Your task to perform on an android device: Open my contact list Image 0: 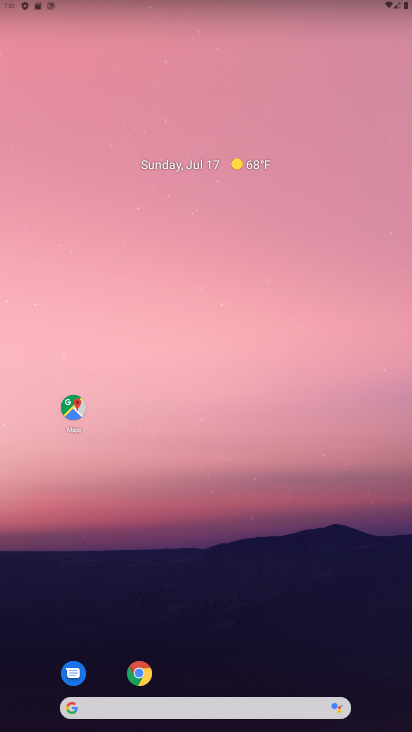
Step 0: drag from (245, 563) to (1, 252)
Your task to perform on an android device: Open my contact list Image 1: 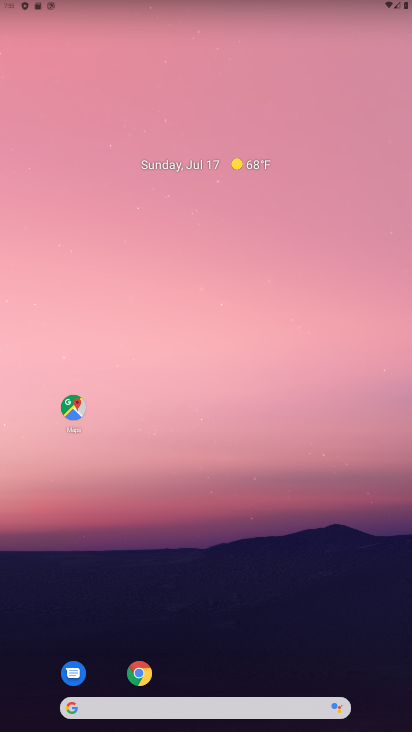
Step 1: drag from (250, 625) to (23, 279)
Your task to perform on an android device: Open my contact list Image 2: 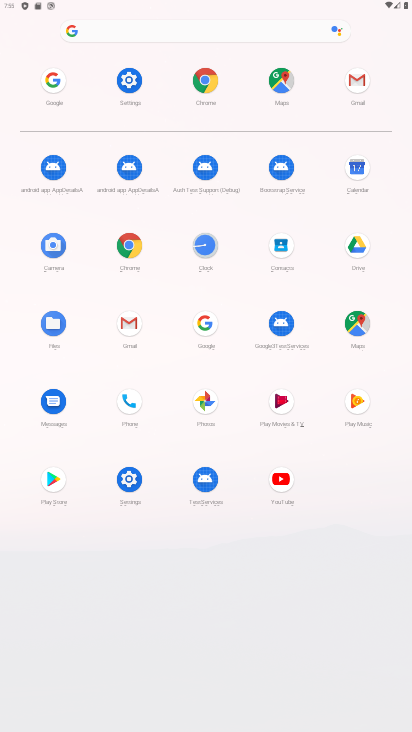
Step 2: click (125, 404)
Your task to perform on an android device: Open my contact list Image 3: 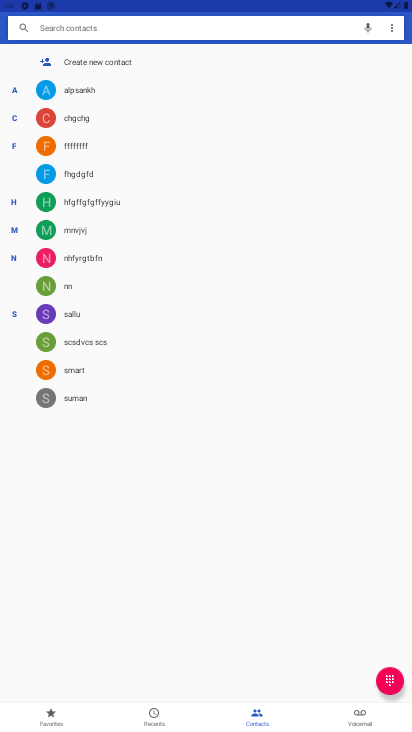
Step 3: task complete